Your task to perform on an android device: Go to privacy settings Image 0: 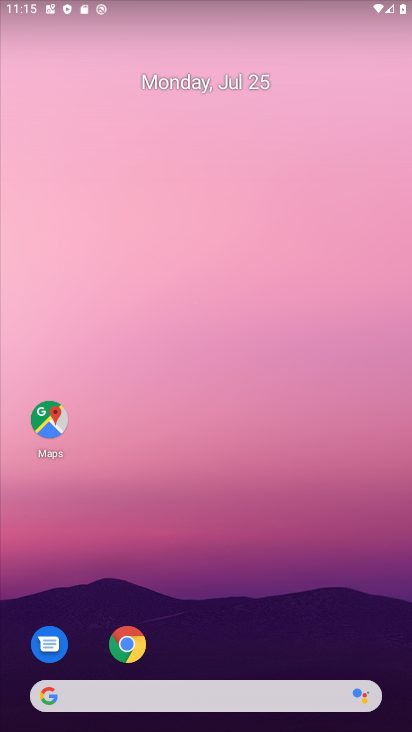
Step 0: drag from (269, 673) to (227, 118)
Your task to perform on an android device: Go to privacy settings Image 1: 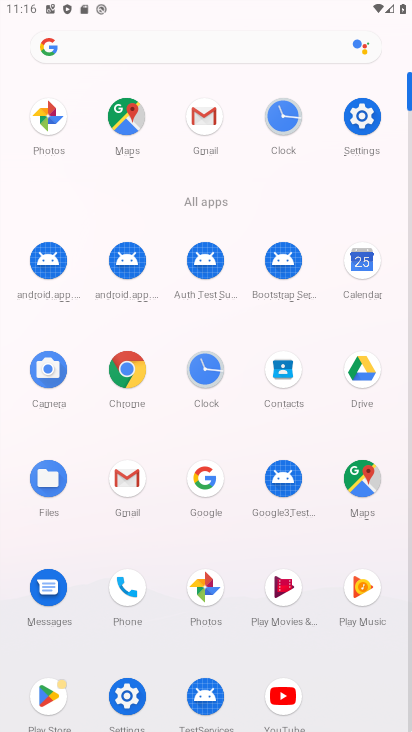
Step 1: click (361, 143)
Your task to perform on an android device: Go to privacy settings Image 2: 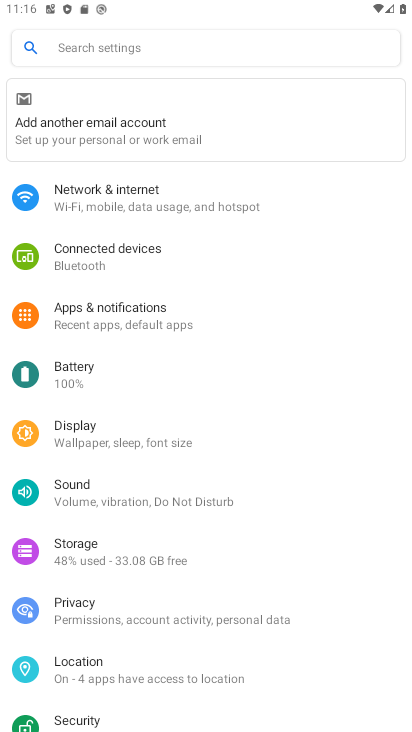
Step 2: click (107, 606)
Your task to perform on an android device: Go to privacy settings Image 3: 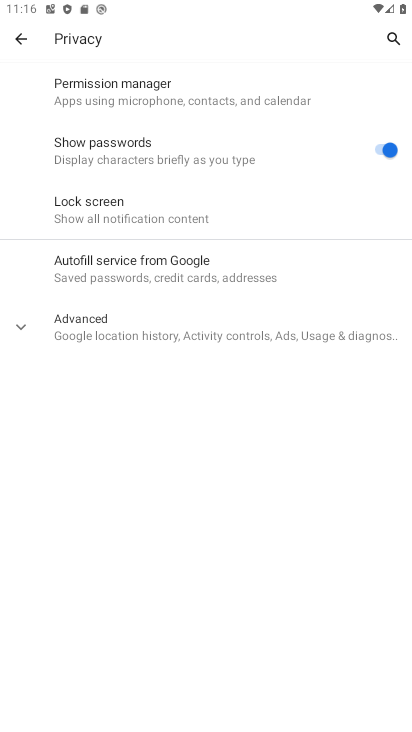
Step 3: click (95, 343)
Your task to perform on an android device: Go to privacy settings Image 4: 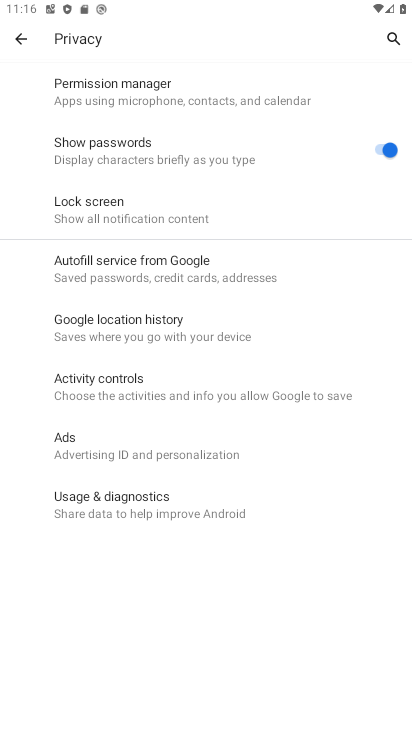
Step 4: task complete